Your task to perform on an android device: move an email to a new category in the gmail app Image 0: 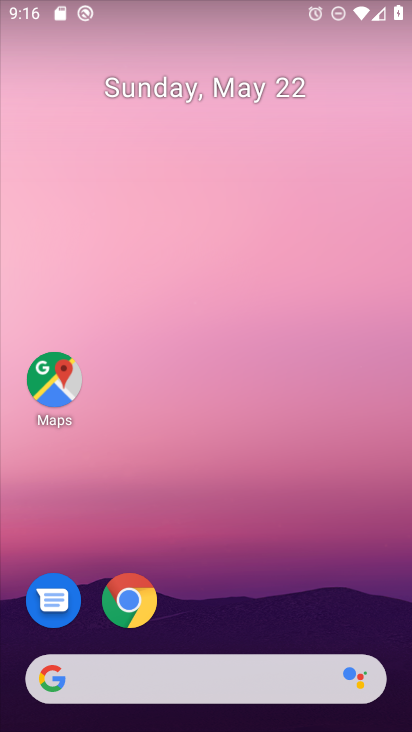
Step 0: drag from (187, 679) to (286, 114)
Your task to perform on an android device: move an email to a new category in the gmail app Image 1: 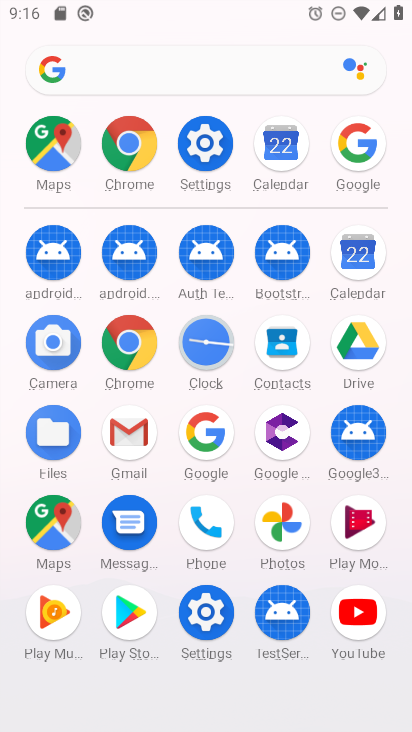
Step 1: click (125, 435)
Your task to perform on an android device: move an email to a new category in the gmail app Image 2: 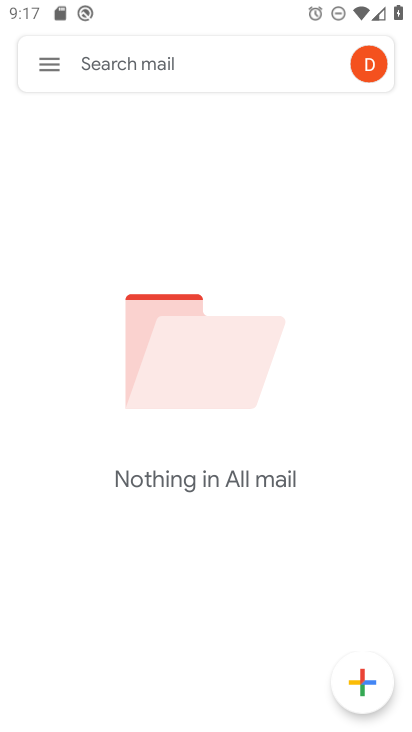
Step 2: click (64, 70)
Your task to perform on an android device: move an email to a new category in the gmail app Image 3: 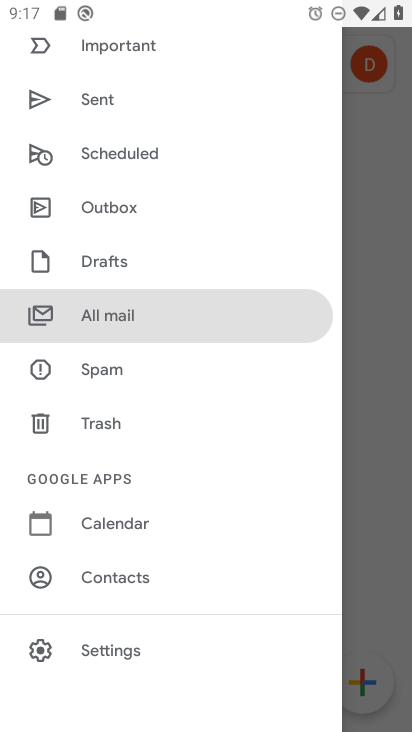
Step 3: task complete